Your task to perform on an android device: toggle pop-ups in chrome Image 0: 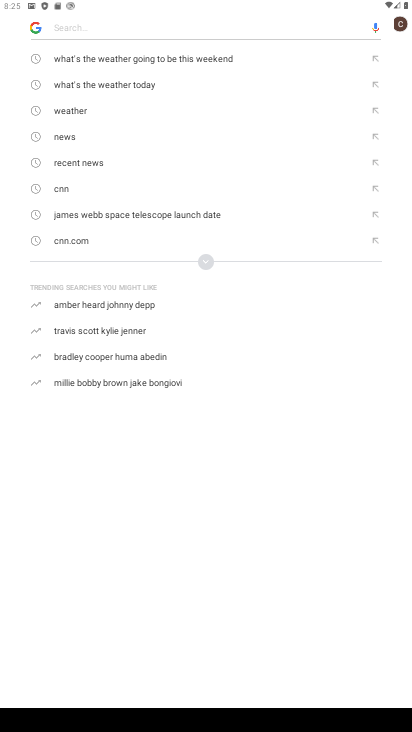
Step 0: press home button
Your task to perform on an android device: toggle pop-ups in chrome Image 1: 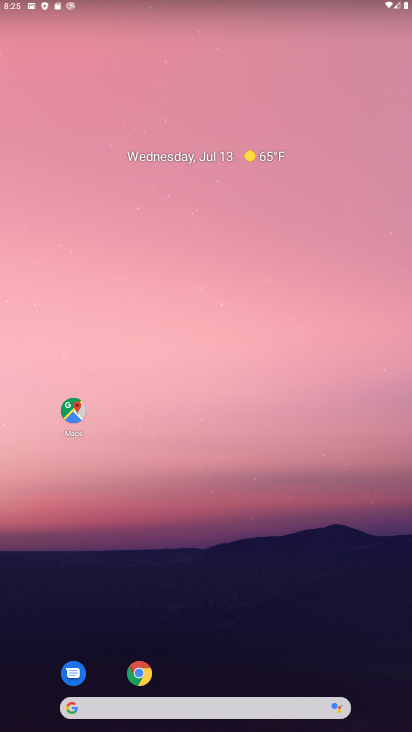
Step 1: click (140, 674)
Your task to perform on an android device: toggle pop-ups in chrome Image 2: 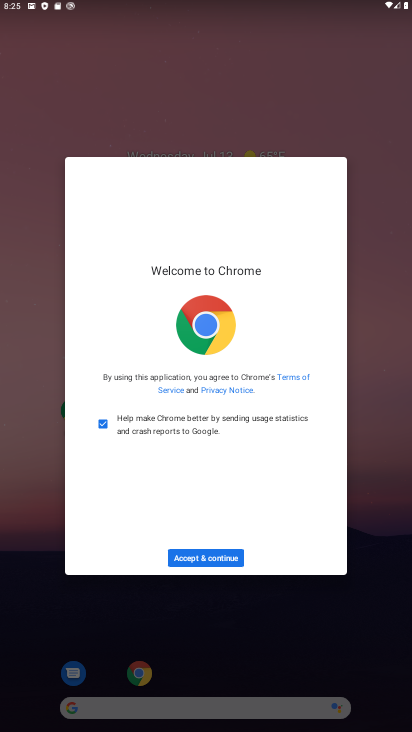
Step 2: click (203, 552)
Your task to perform on an android device: toggle pop-ups in chrome Image 3: 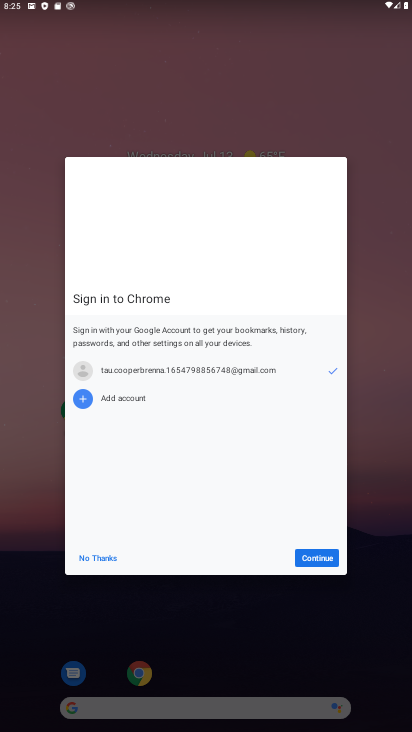
Step 3: click (315, 556)
Your task to perform on an android device: toggle pop-ups in chrome Image 4: 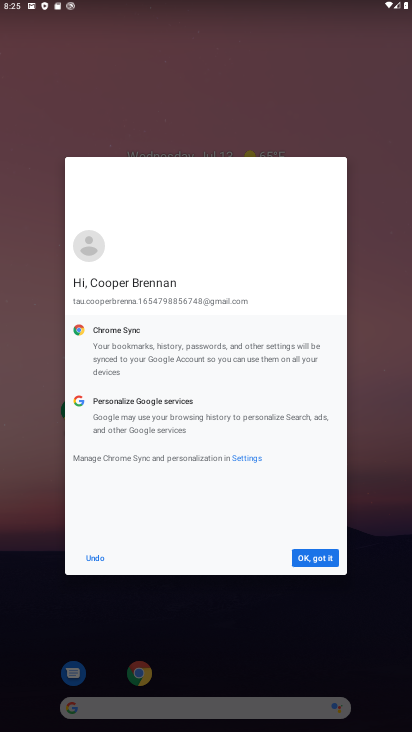
Step 4: click (315, 556)
Your task to perform on an android device: toggle pop-ups in chrome Image 5: 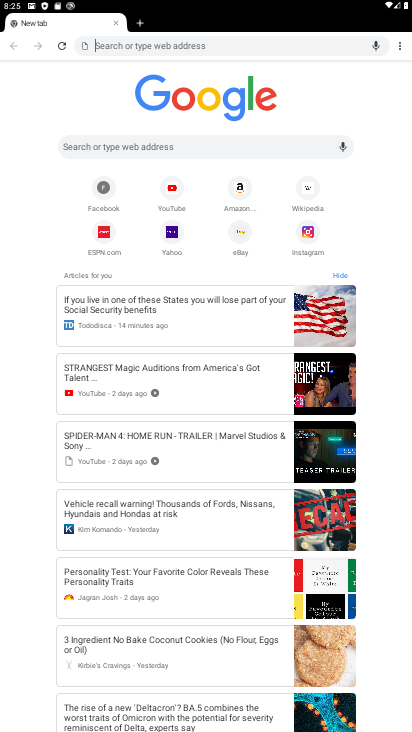
Step 5: click (401, 47)
Your task to perform on an android device: toggle pop-ups in chrome Image 6: 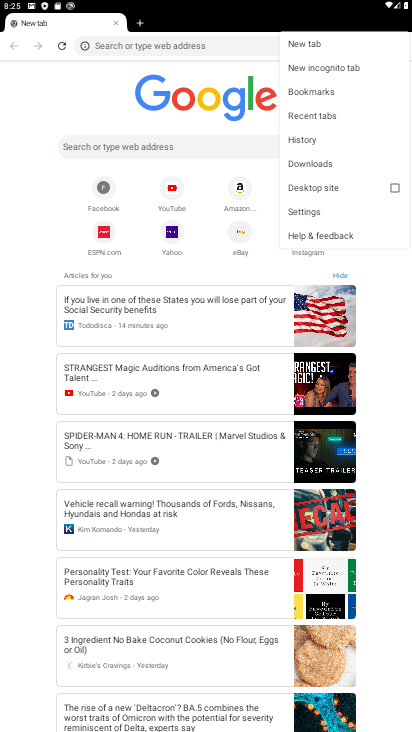
Step 6: click (313, 209)
Your task to perform on an android device: toggle pop-ups in chrome Image 7: 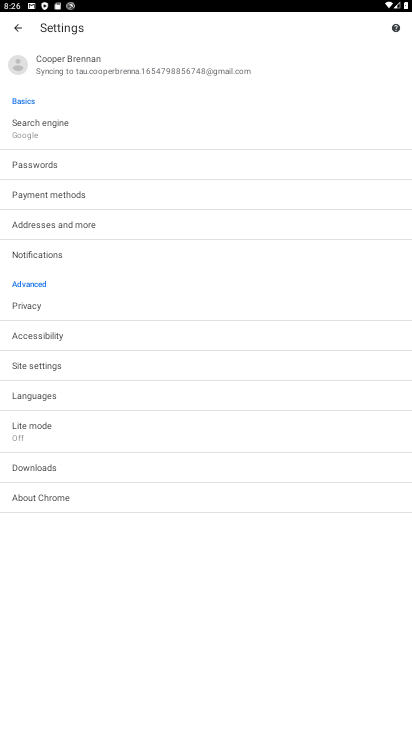
Step 7: click (42, 365)
Your task to perform on an android device: toggle pop-ups in chrome Image 8: 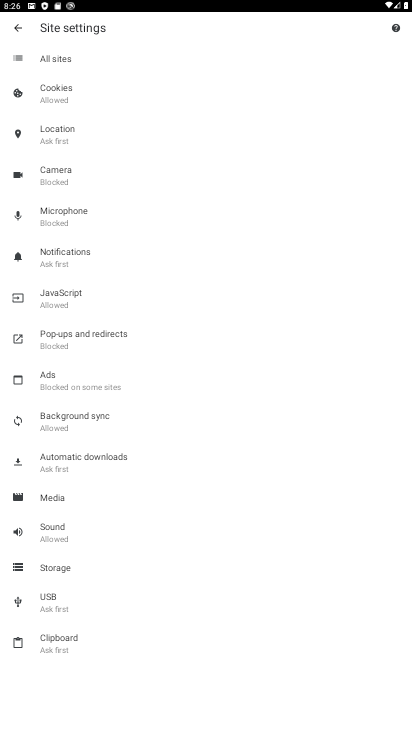
Step 8: click (65, 333)
Your task to perform on an android device: toggle pop-ups in chrome Image 9: 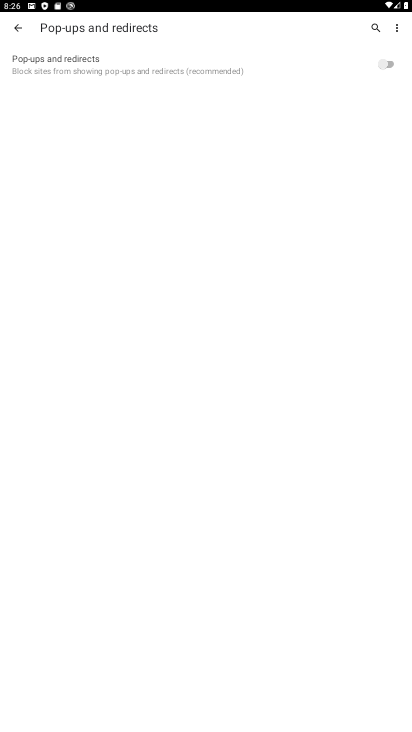
Step 9: click (384, 61)
Your task to perform on an android device: toggle pop-ups in chrome Image 10: 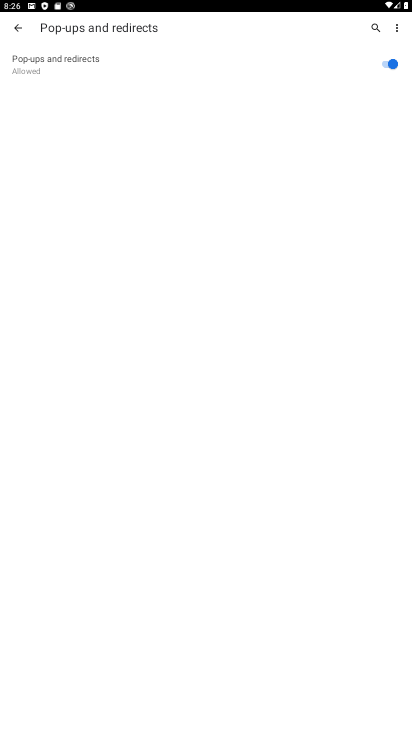
Step 10: task complete